Your task to perform on an android device: see creations saved in the google photos Image 0: 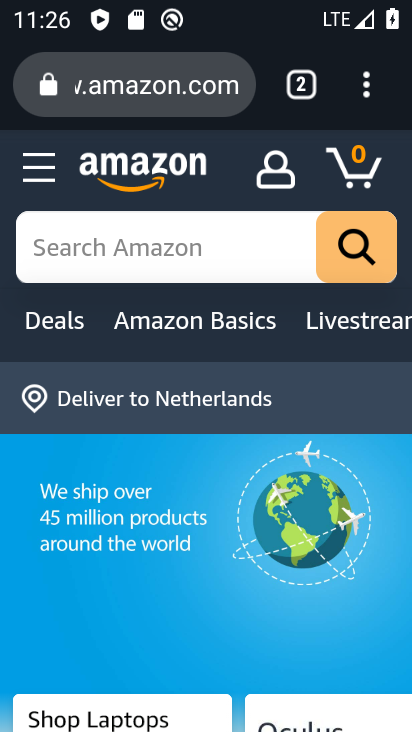
Step 0: press home button
Your task to perform on an android device: see creations saved in the google photos Image 1: 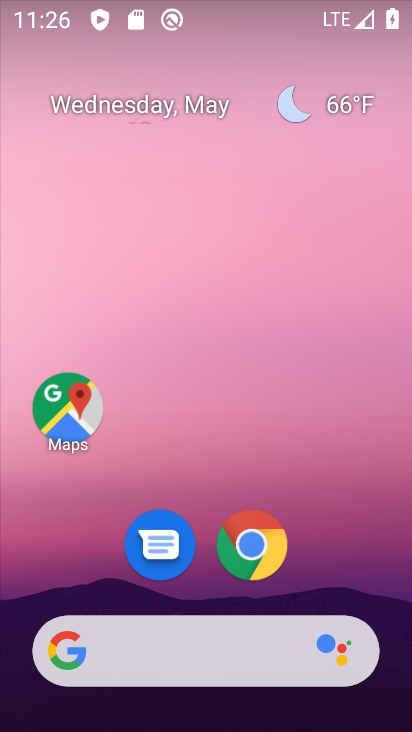
Step 1: drag from (151, 700) to (237, 13)
Your task to perform on an android device: see creations saved in the google photos Image 2: 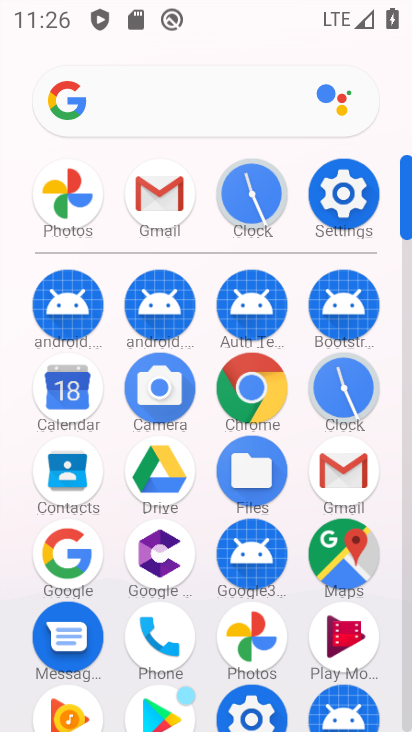
Step 2: click (70, 206)
Your task to perform on an android device: see creations saved in the google photos Image 3: 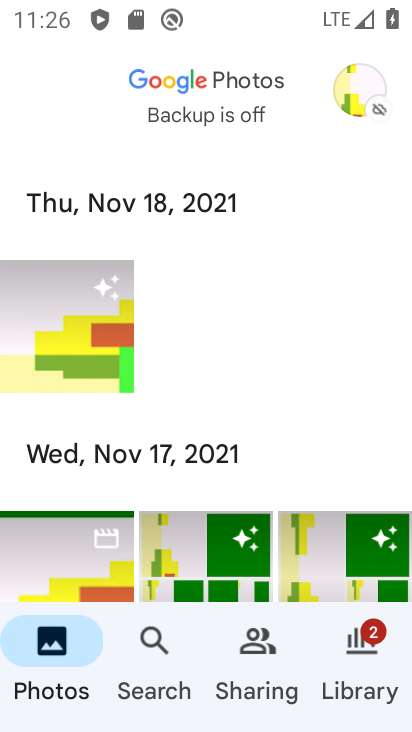
Step 3: click (158, 647)
Your task to perform on an android device: see creations saved in the google photos Image 4: 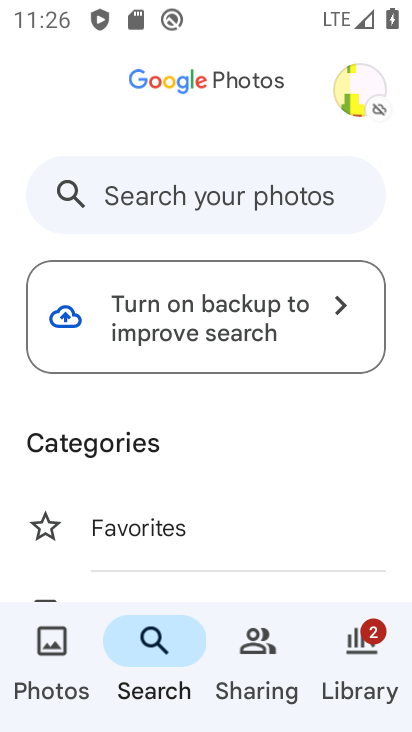
Step 4: drag from (268, 551) to (226, 155)
Your task to perform on an android device: see creations saved in the google photos Image 5: 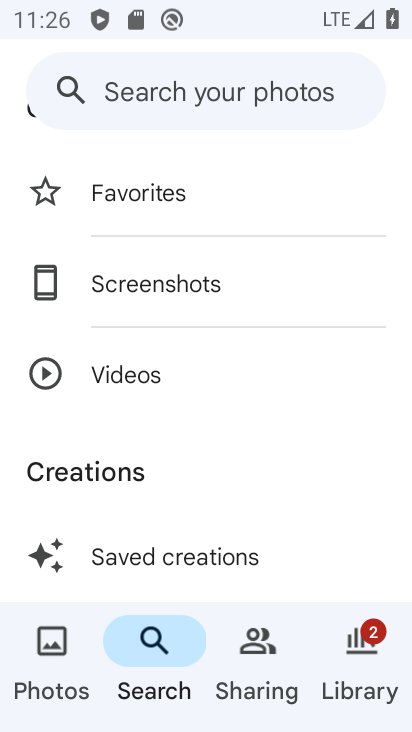
Step 5: click (124, 552)
Your task to perform on an android device: see creations saved in the google photos Image 6: 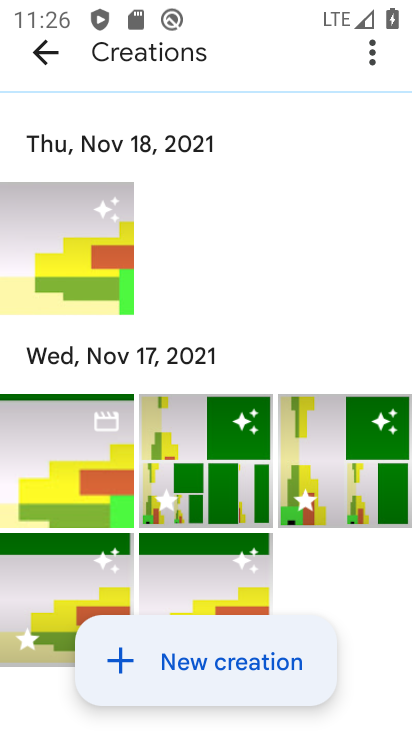
Step 6: task complete